Your task to perform on an android device: Go to eBay Image 0: 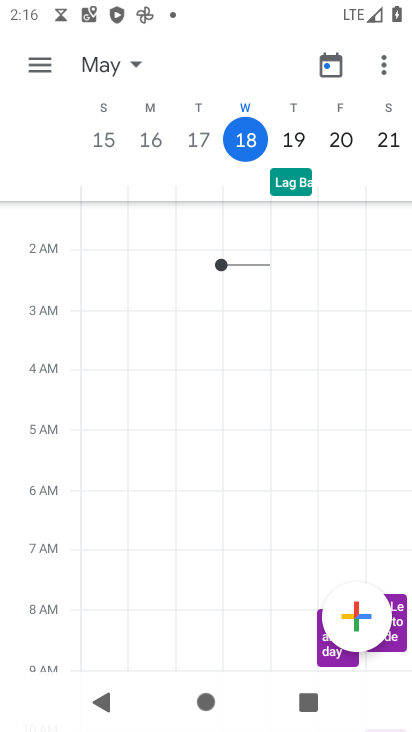
Step 0: press home button
Your task to perform on an android device: Go to eBay Image 1: 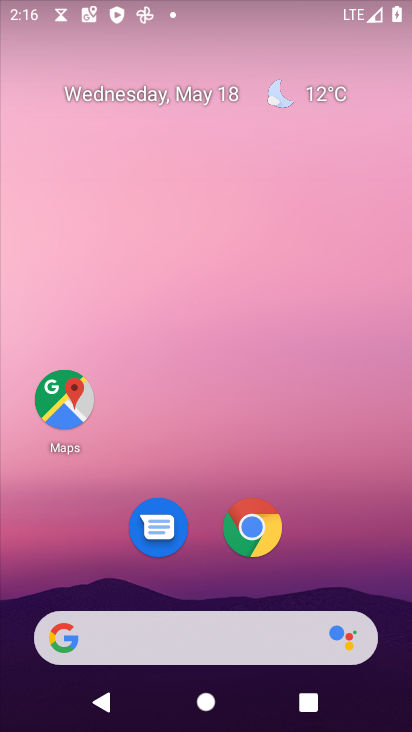
Step 1: click (261, 520)
Your task to perform on an android device: Go to eBay Image 2: 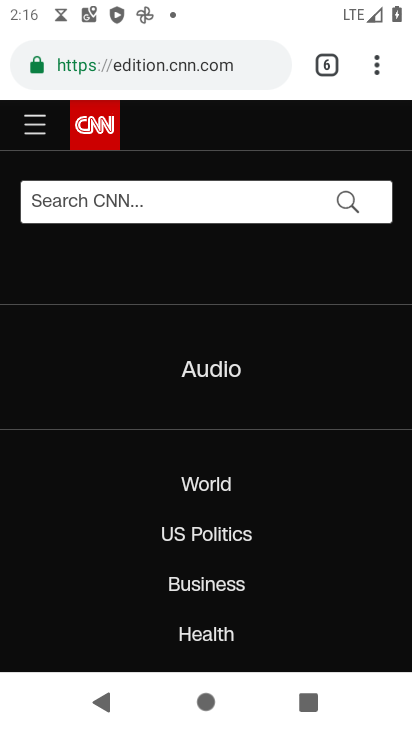
Step 2: click (324, 66)
Your task to perform on an android device: Go to eBay Image 3: 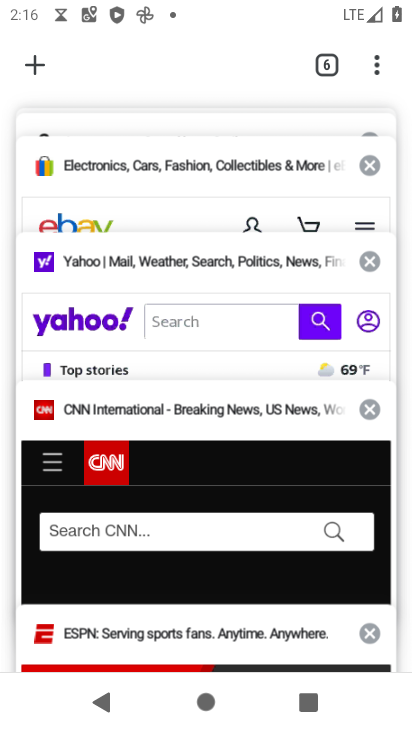
Step 3: click (112, 179)
Your task to perform on an android device: Go to eBay Image 4: 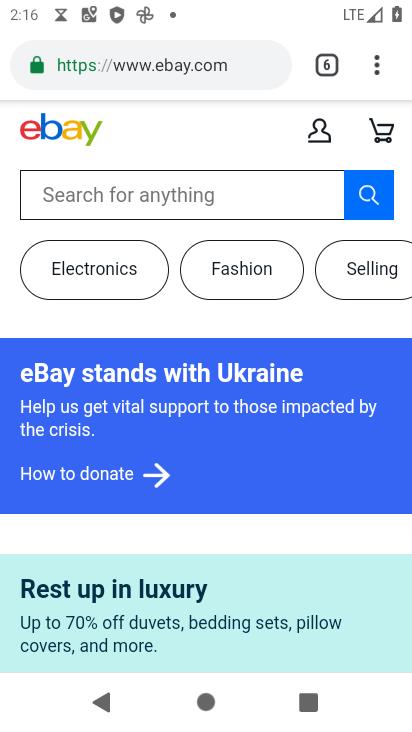
Step 4: task complete